Your task to perform on an android device: add a contact Image 0: 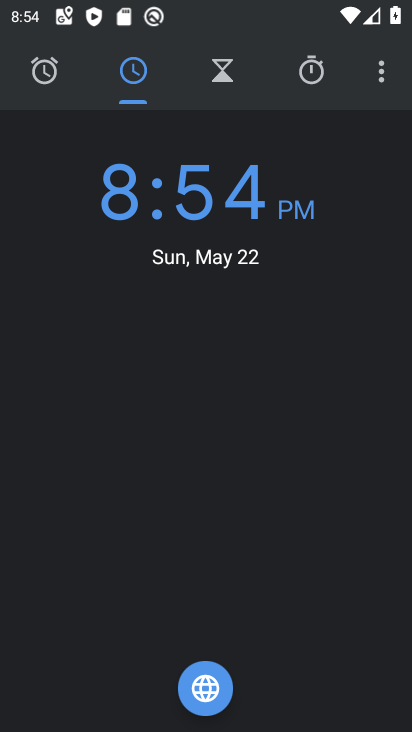
Step 0: press home button
Your task to perform on an android device: add a contact Image 1: 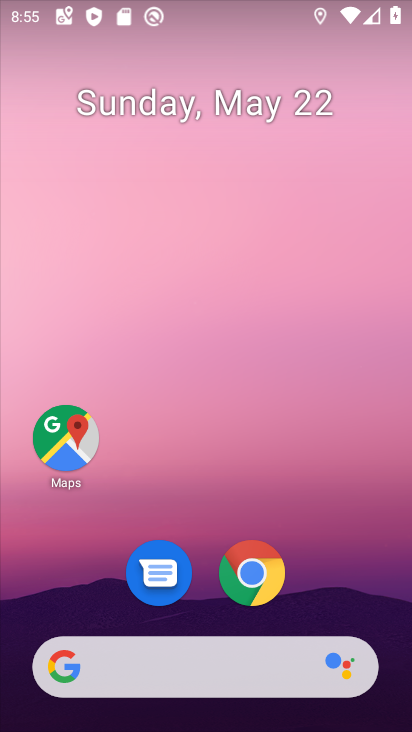
Step 1: drag from (298, 687) to (278, 41)
Your task to perform on an android device: add a contact Image 2: 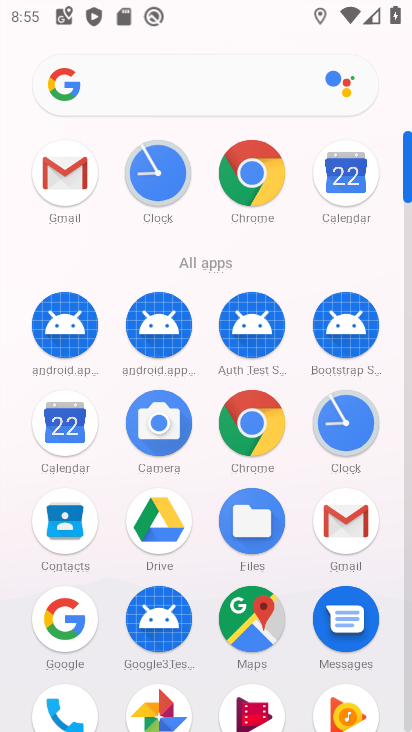
Step 2: click (44, 513)
Your task to perform on an android device: add a contact Image 3: 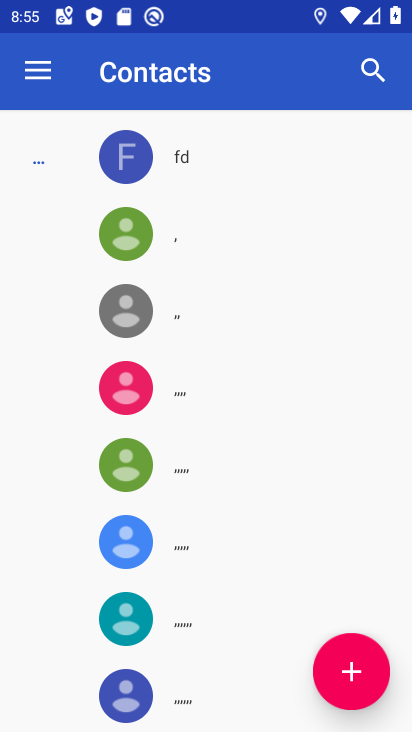
Step 3: click (361, 663)
Your task to perform on an android device: add a contact Image 4: 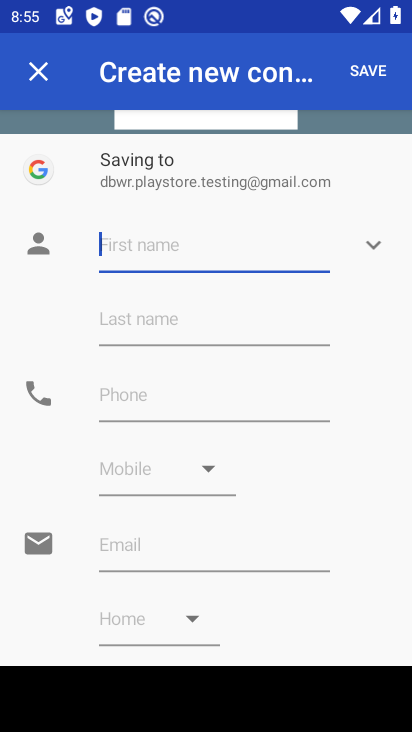
Step 4: type "sadsaf"
Your task to perform on an android device: add a contact Image 5: 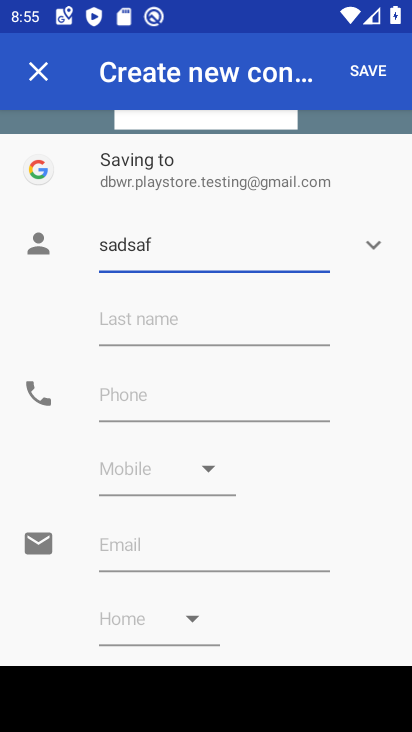
Step 5: click (237, 402)
Your task to perform on an android device: add a contact Image 6: 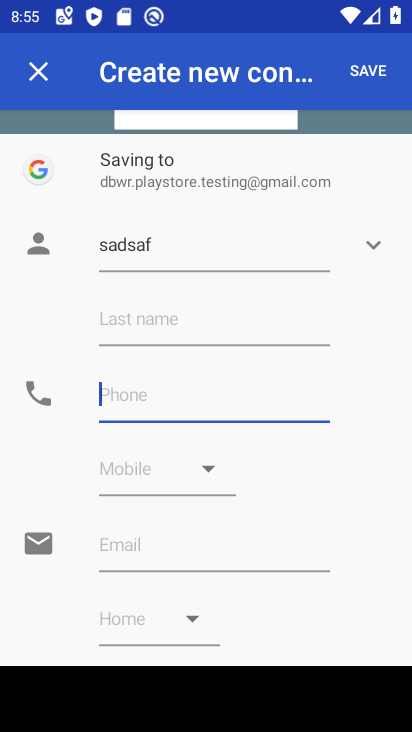
Step 6: type "9884744748"
Your task to perform on an android device: add a contact Image 7: 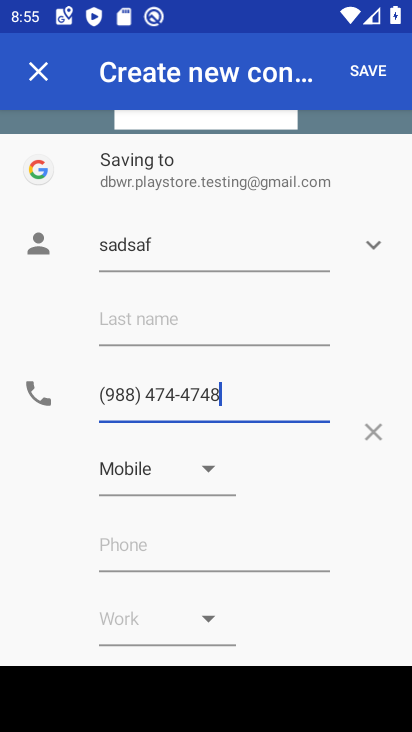
Step 7: click (363, 61)
Your task to perform on an android device: add a contact Image 8: 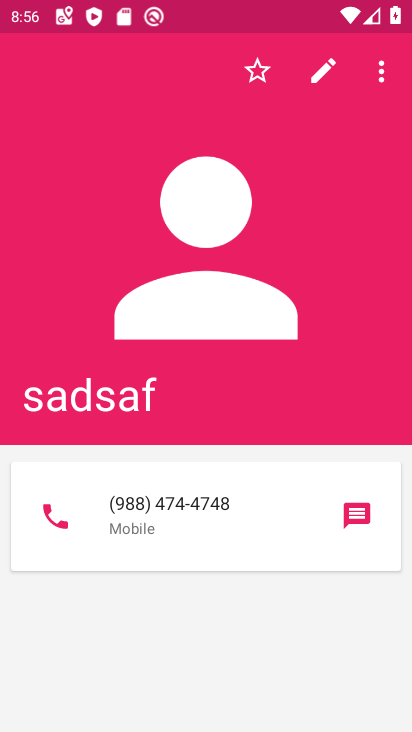
Step 8: task complete